Your task to perform on an android device: change the clock style Image 0: 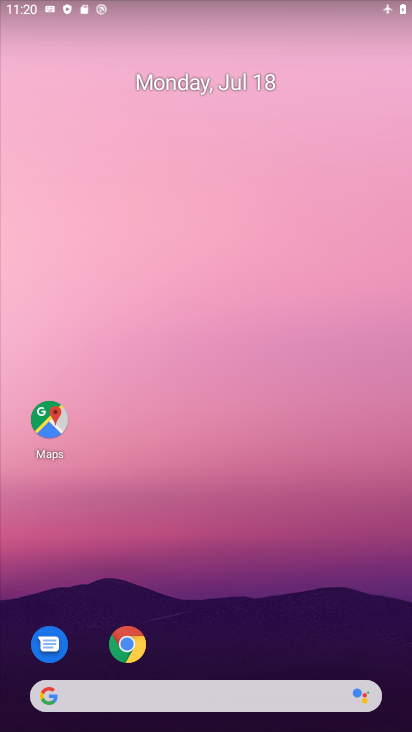
Step 0: drag from (190, 657) to (4, 450)
Your task to perform on an android device: change the clock style Image 1: 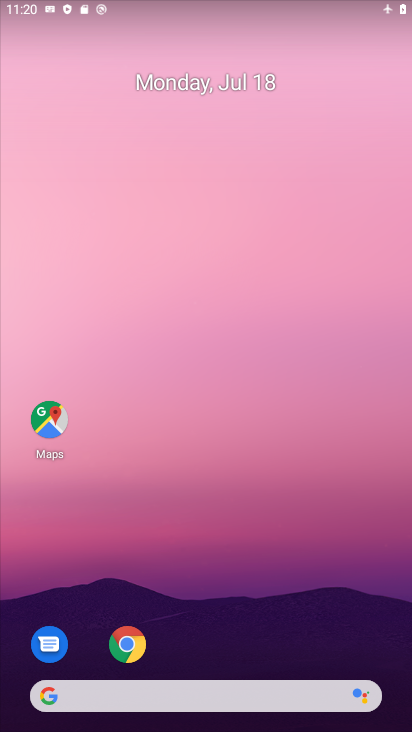
Step 1: drag from (215, 647) to (236, 5)
Your task to perform on an android device: change the clock style Image 2: 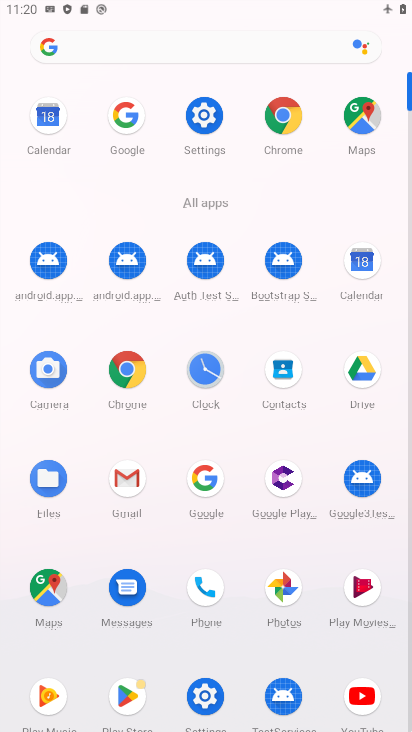
Step 2: click (215, 396)
Your task to perform on an android device: change the clock style Image 3: 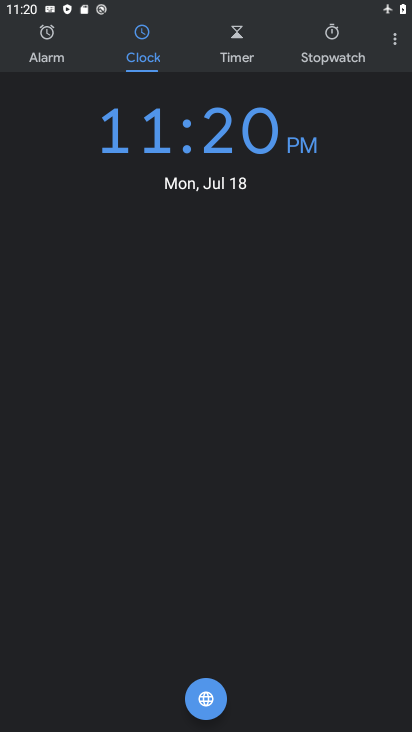
Step 3: drag from (396, 37) to (307, 72)
Your task to perform on an android device: change the clock style Image 4: 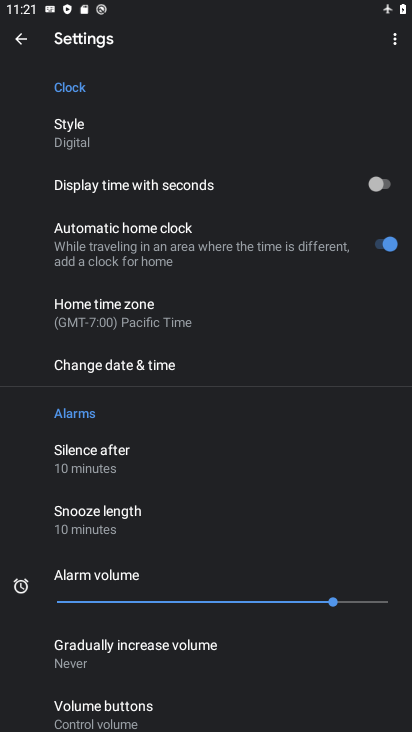
Step 4: click (84, 127)
Your task to perform on an android device: change the clock style Image 5: 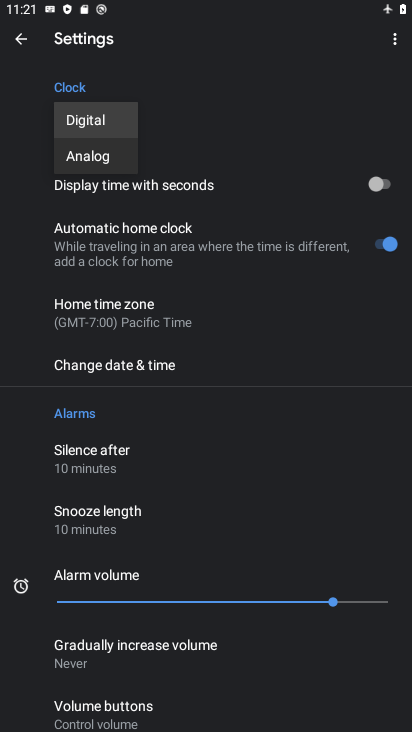
Step 5: click (90, 153)
Your task to perform on an android device: change the clock style Image 6: 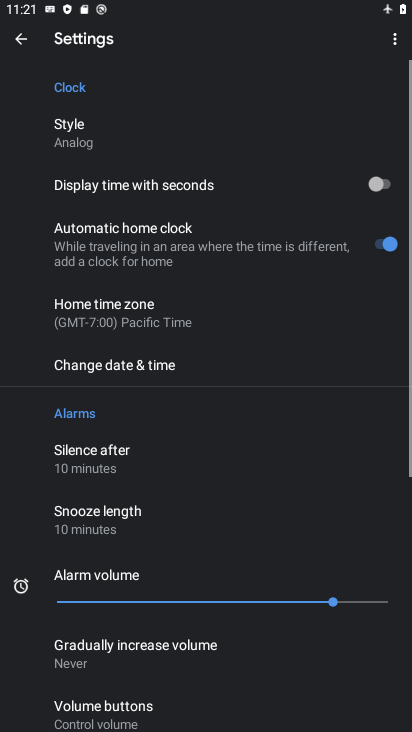
Step 6: task complete